Your task to perform on an android device: Search for seafood restaurants on Google Maps Image 0: 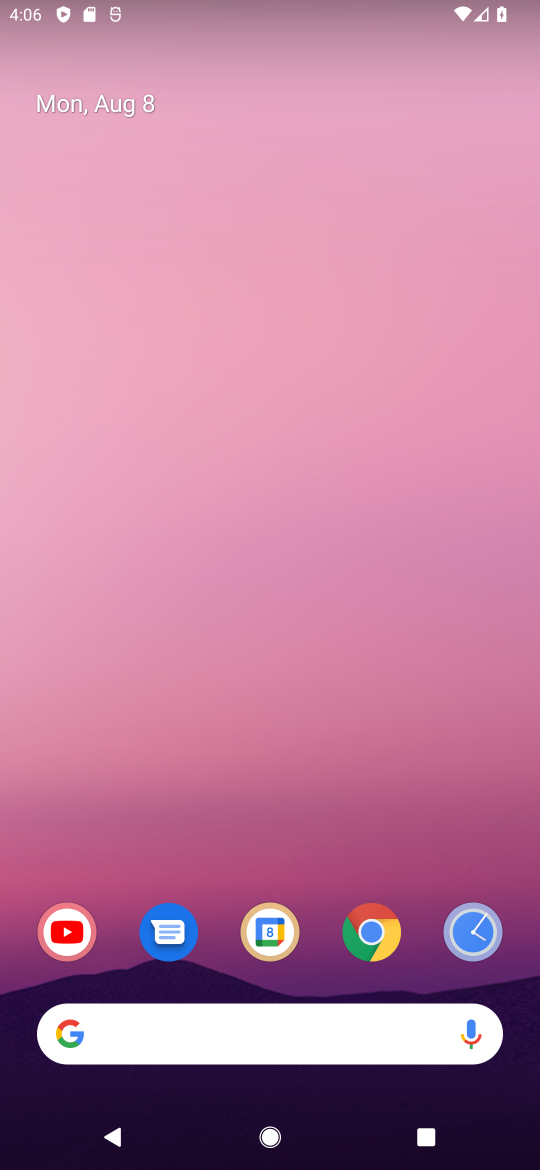
Step 0: drag from (232, 266) to (265, 110)
Your task to perform on an android device: Search for seafood restaurants on Google Maps Image 1: 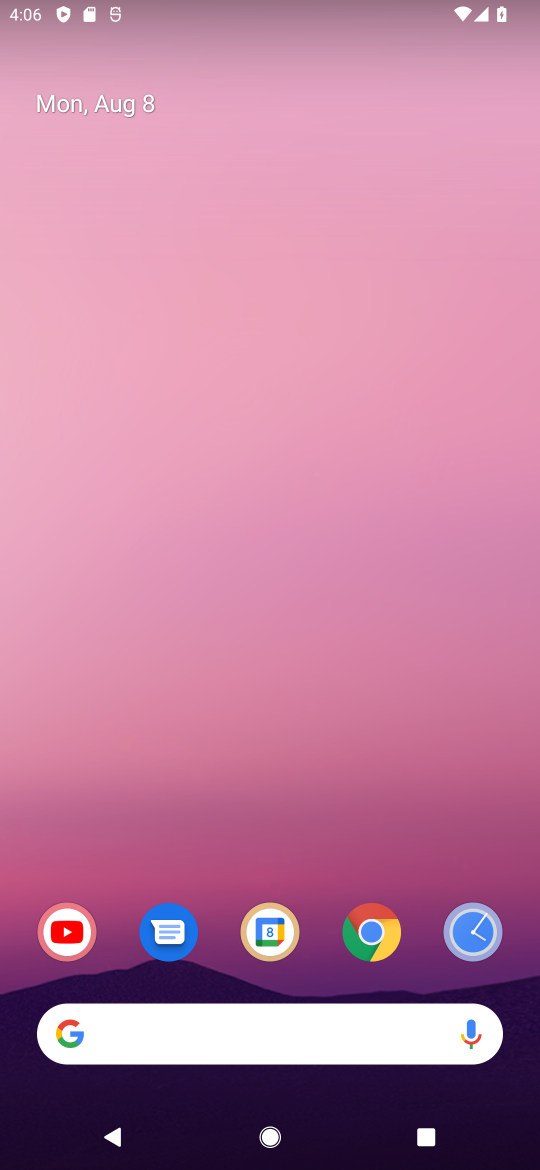
Step 1: drag from (381, 1108) to (346, 908)
Your task to perform on an android device: Search for seafood restaurants on Google Maps Image 2: 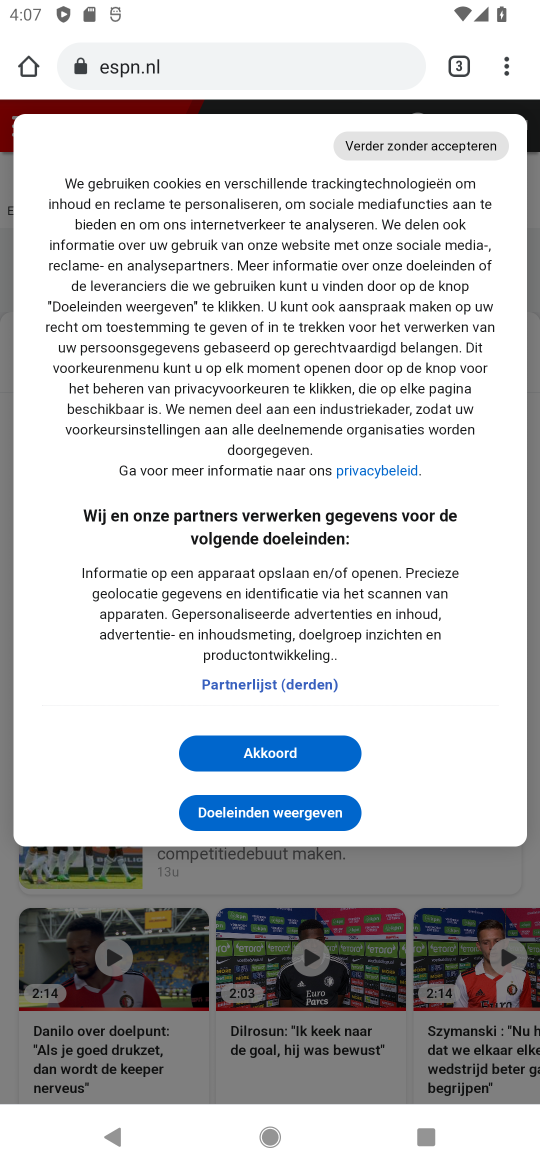
Step 2: press home button
Your task to perform on an android device: Search for seafood restaurants on Google Maps Image 3: 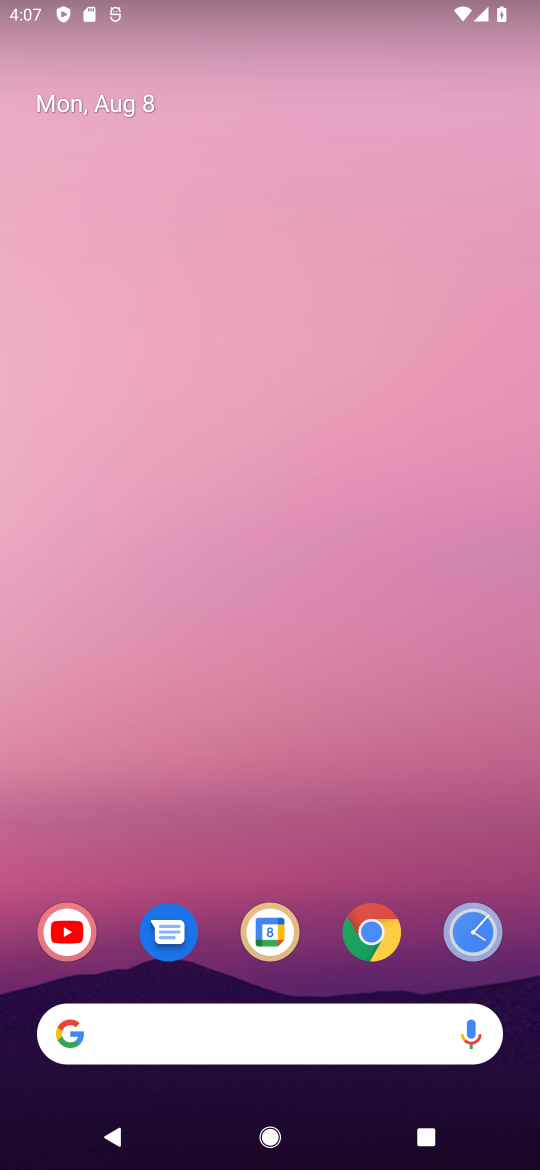
Step 3: drag from (354, 676) to (354, 383)
Your task to perform on an android device: Search for seafood restaurants on Google Maps Image 4: 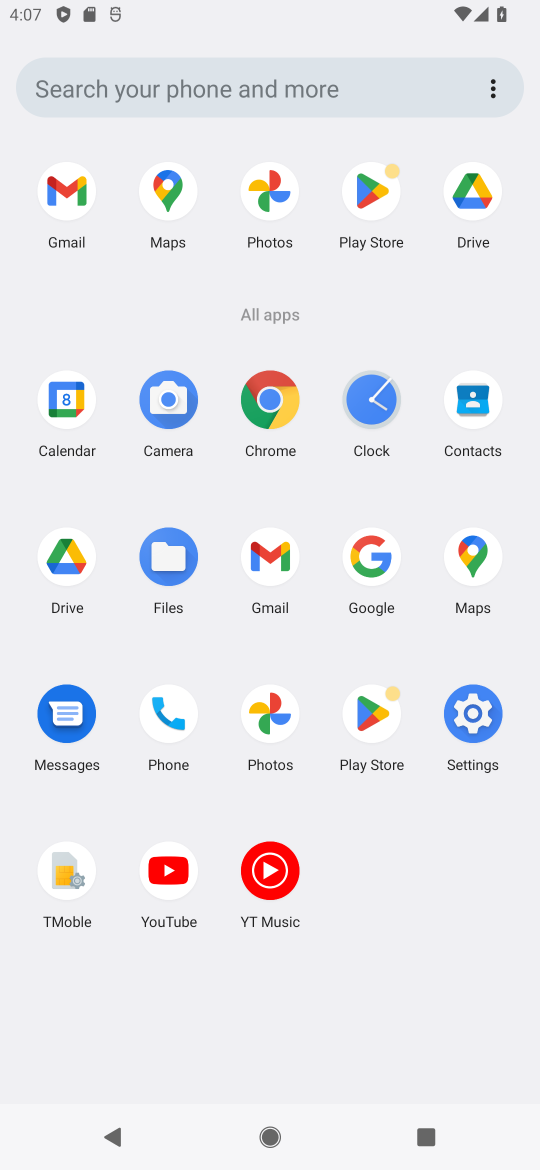
Step 4: click (496, 556)
Your task to perform on an android device: Search for seafood restaurants on Google Maps Image 5: 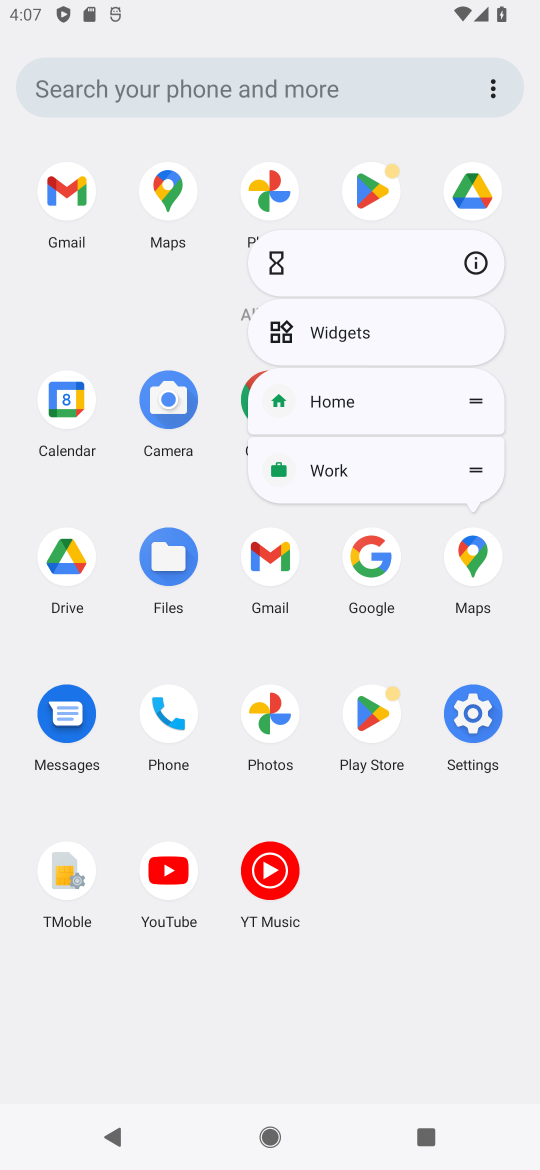
Step 5: click (451, 581)
Your task to perform on an android device: Search for seafood restaurants on Google Maps Image 6: 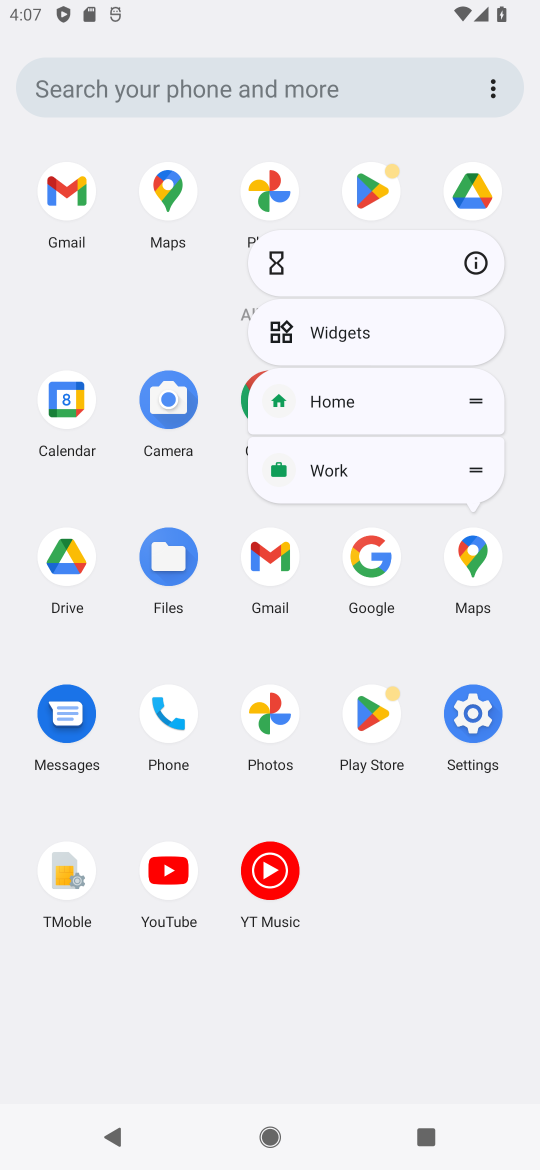
Step 6: click (460, 573)
Your task to perform on an android device: Search for seafood restaurants on Google Maps Image 7: 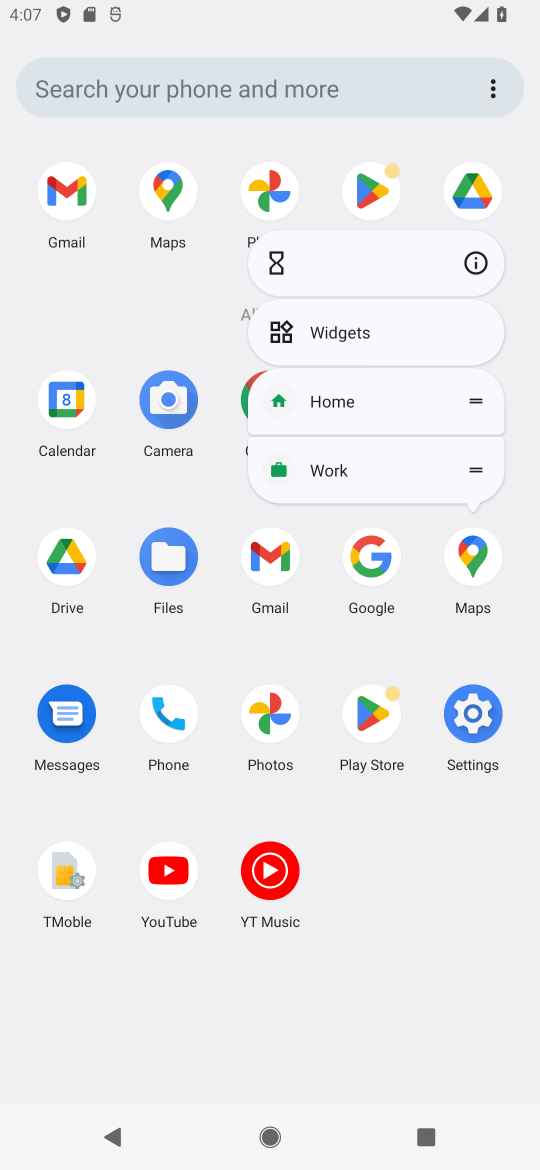
Step 7: click (460, 573)
Your task to perform on an android device: Search for seafood restaurants on Google Maps Image 8: 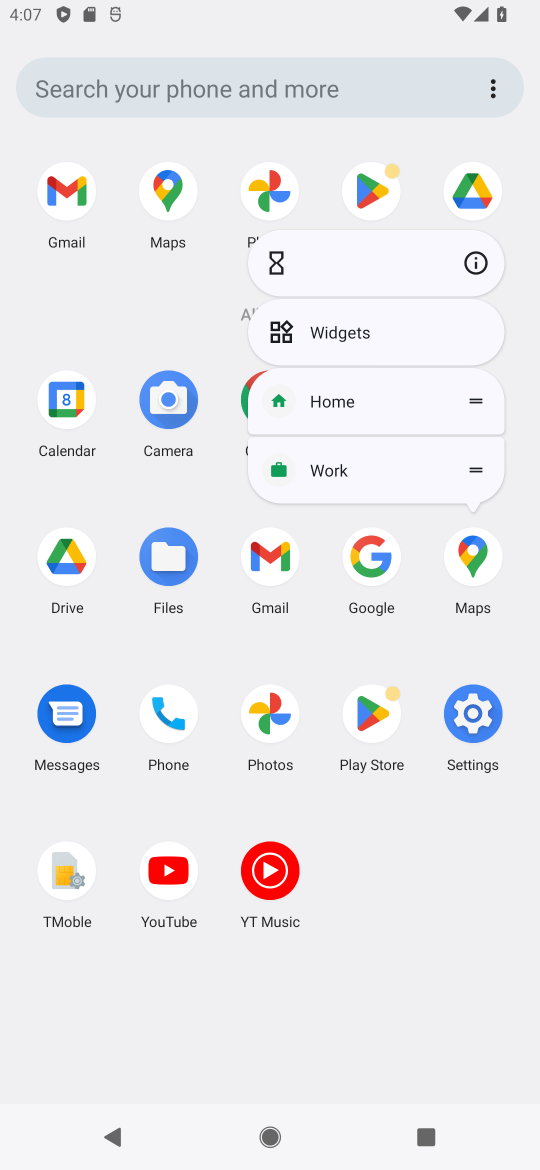
Step 8: click (460, 573)
Your task to perform on an android device: Search for seafood restaurants on Google Maps Image 9: 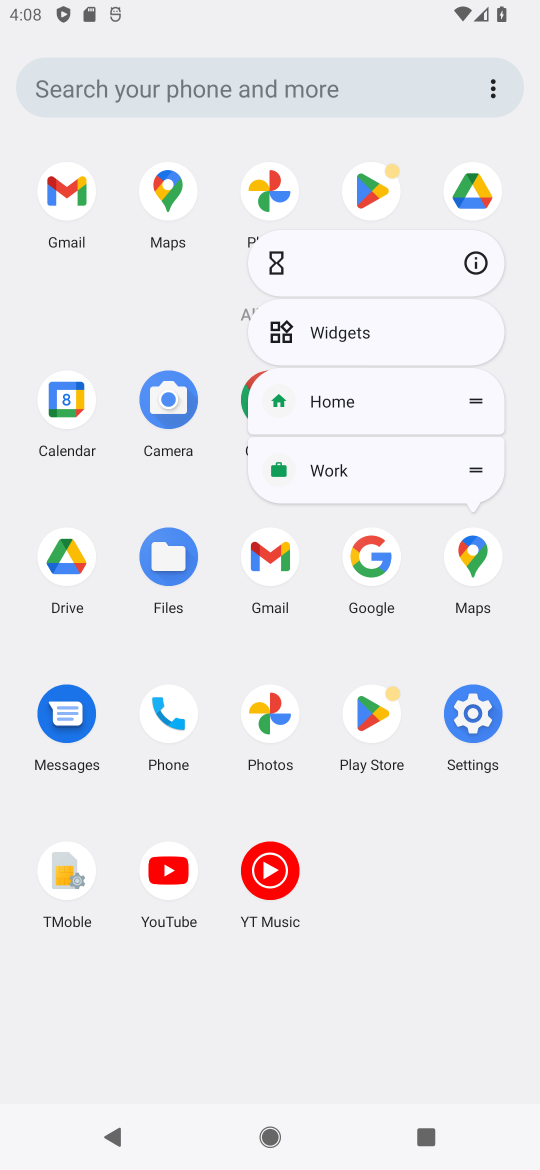
Step 9: click (481, 592)
Your task to perform on an android device: Search for seafood restaurants on Google Maps Image 10: 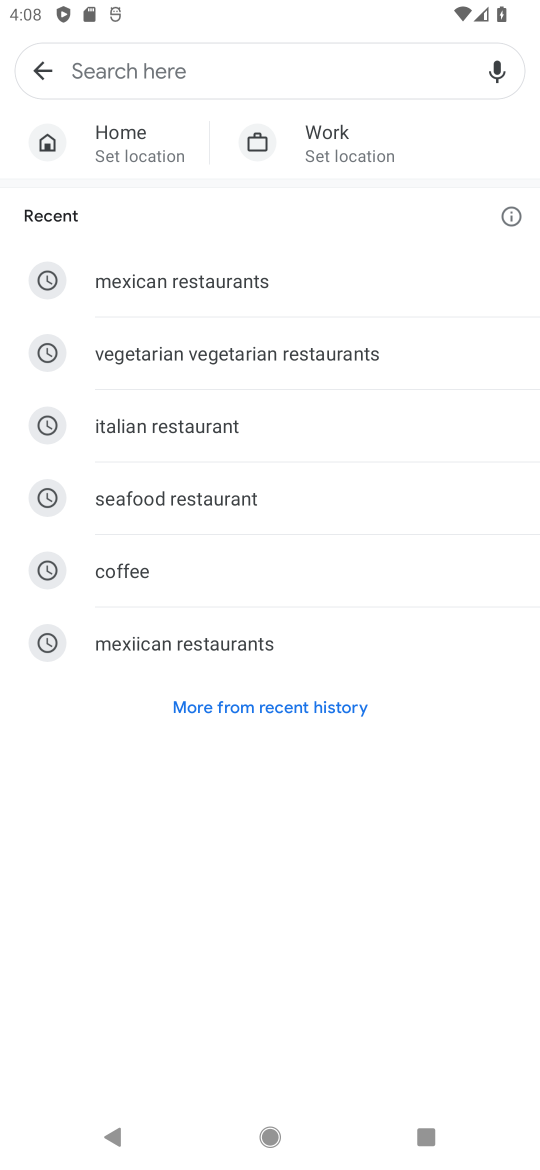
Step 10: click (191, 67)
Your task to perform on an android device: Search for seafood restaurants on Google Maps Image 11: 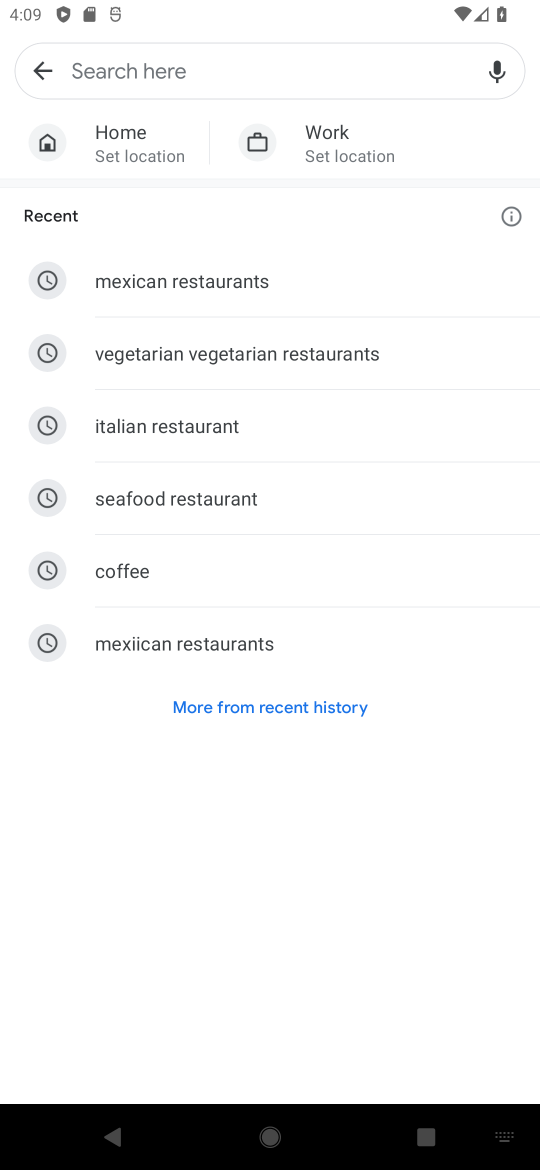
Step 11: type "seafood"
Your task to perform on an android device: Search for seafood restaurants on Google Maps Image 12: 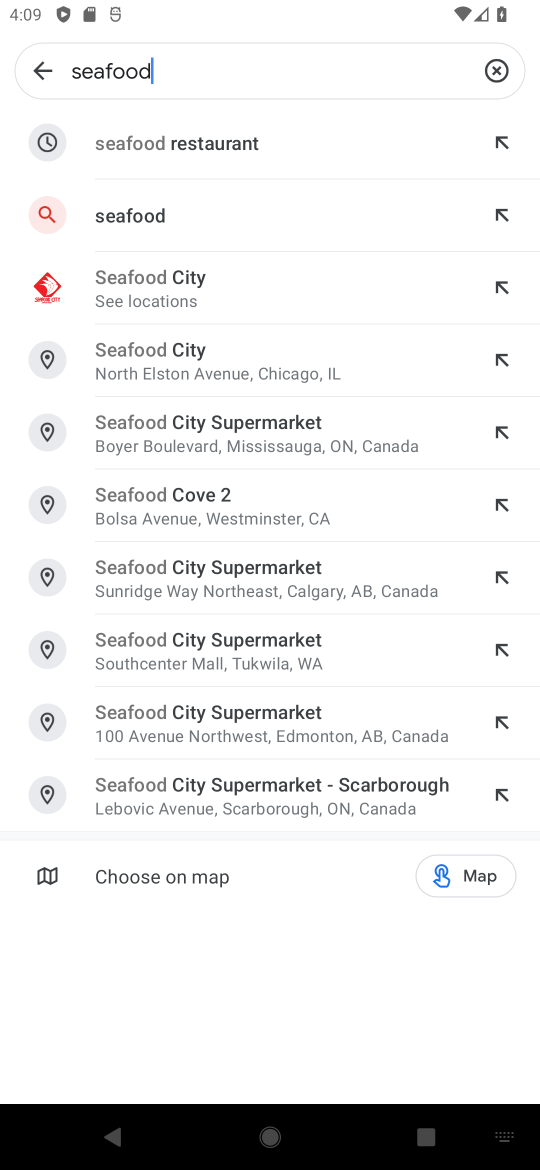
Step 12: click (245, 146)
Your task to perform on an android device: Search for seafood restaurants on Google Maps Image 13: 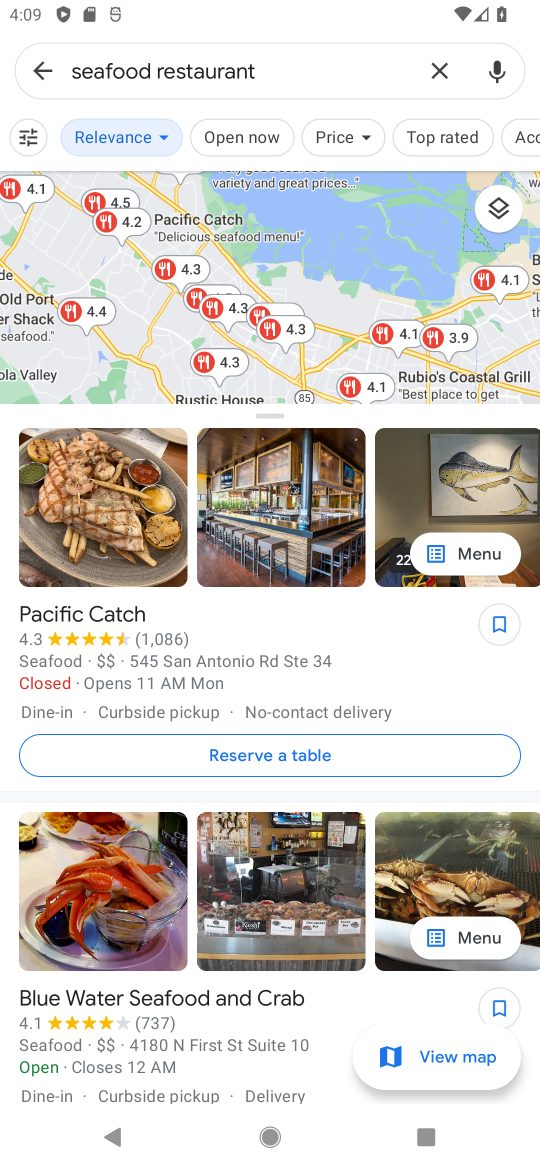
Step 13: task complete